Your task to perform on an android device: What's on my calendar today? Image 0: 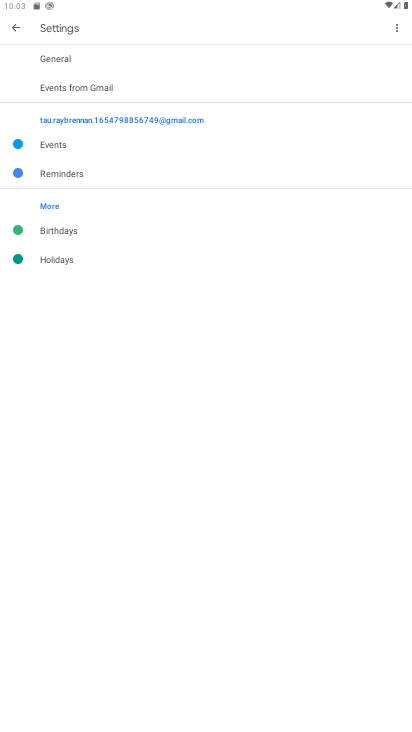
Step 0: press home button
Your task to perform on an android device: What's on my calendar today? Image 1: 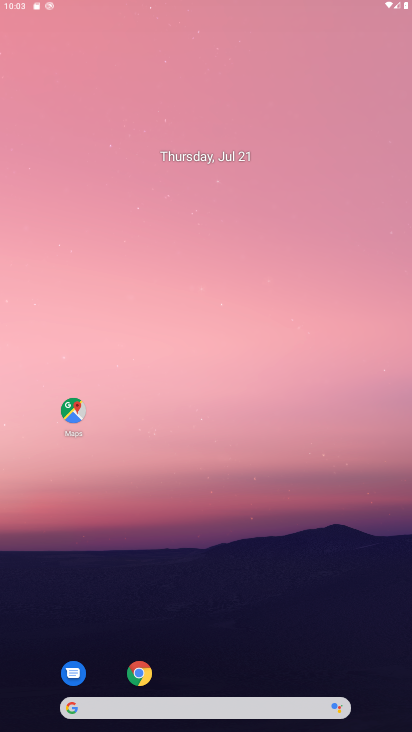
Step 1: drag from (210, 535) to (209, 31)
Your task to perform on an android device: What's on my calendar today? Image 2: 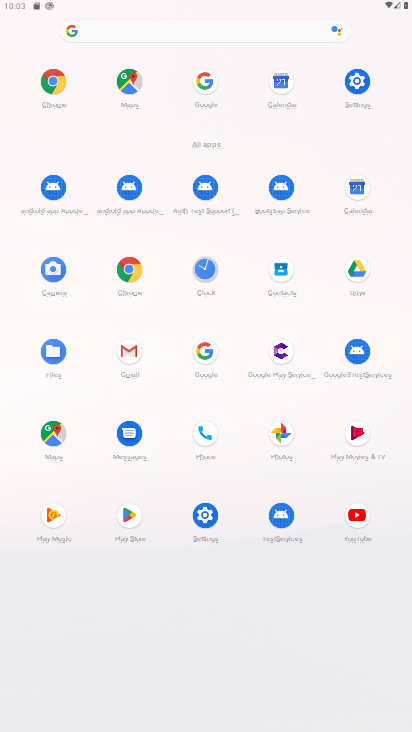
Step 2: click (357, 184)
Your task to perform on an android device: What's on my calendar today? Image 3: 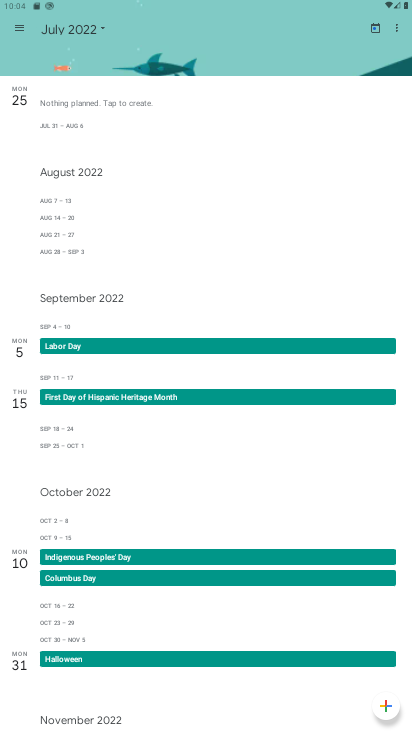
Step 3: click (90, 25)
Your task to perform on an android device: What's on my calendar today? Image 4: 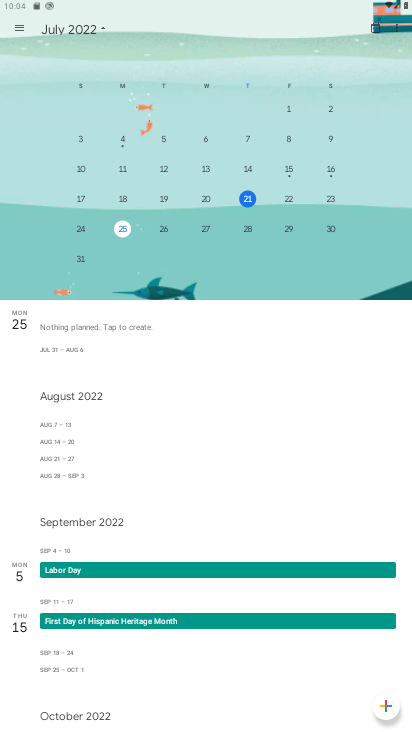
Step 4: click (245, 199)
Your task to perform on an android device: What's on my calendar today? Image 5: 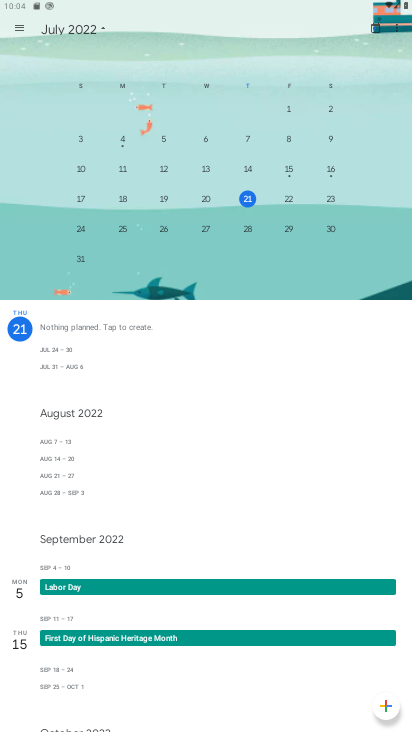
Step 5: task complete